Your task to perform on an android device: change keyboard looks Image 0: 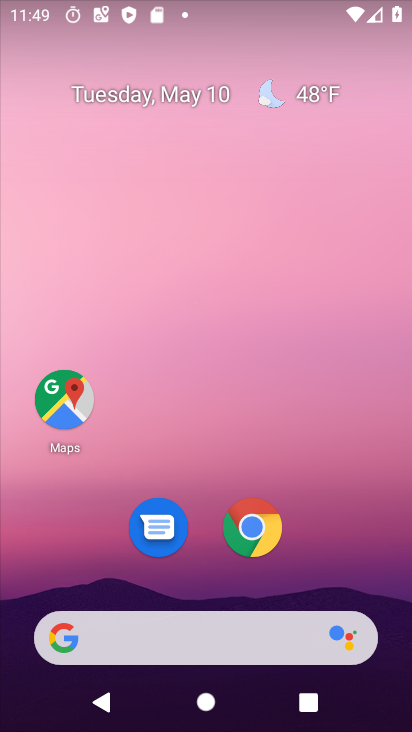
Step 0: drag from (227, 696) to (218, 126)
Your task to perform on an android device: change keyboard looks Image 1: 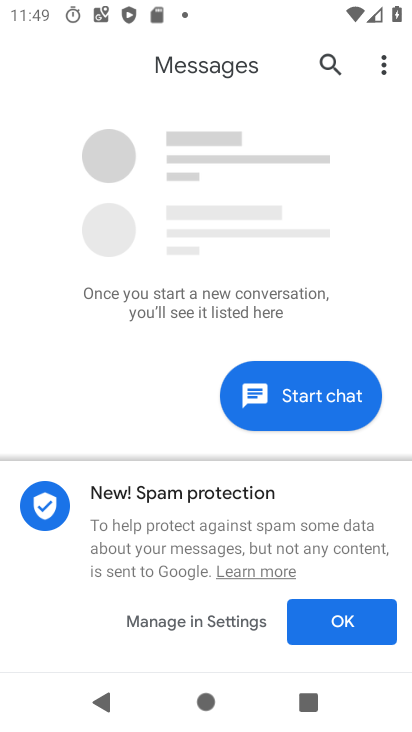
Step 1: press home button
Your task to perform on an android device: change keyboard looks Image 2: 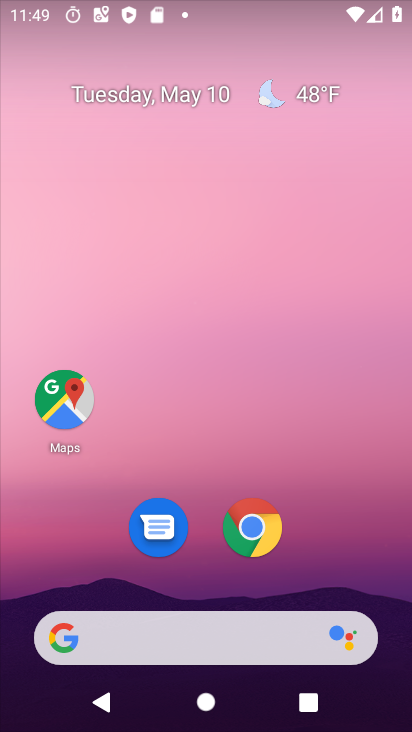
Step 2: drag from (226, 715) to (226, 88)
Your task to perform on an android device: change keyboard looks Image 3: 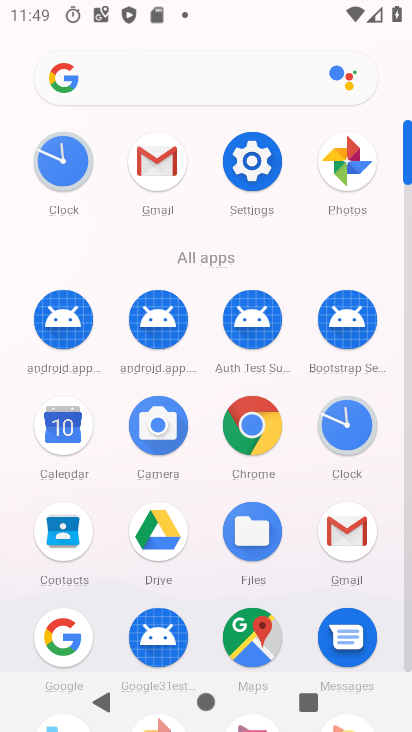
Step 3: click (254, 171)
Your task to perform on an android device: change keyboard looks Image 4: 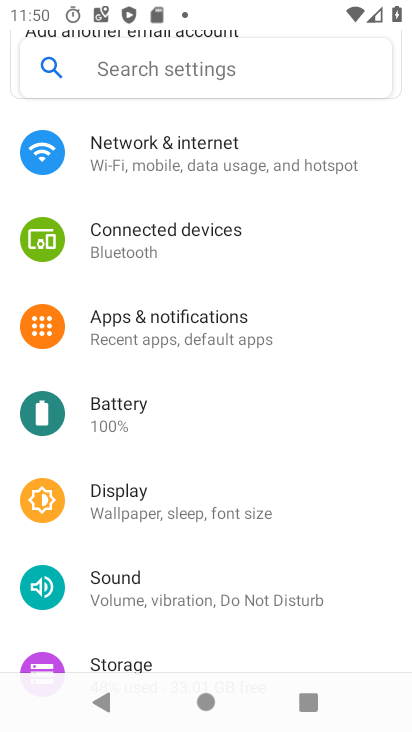
Step 4: drag from (210, 637) to (188, 279)
Your task to perform on an android device: change keyboard looks Image 5: 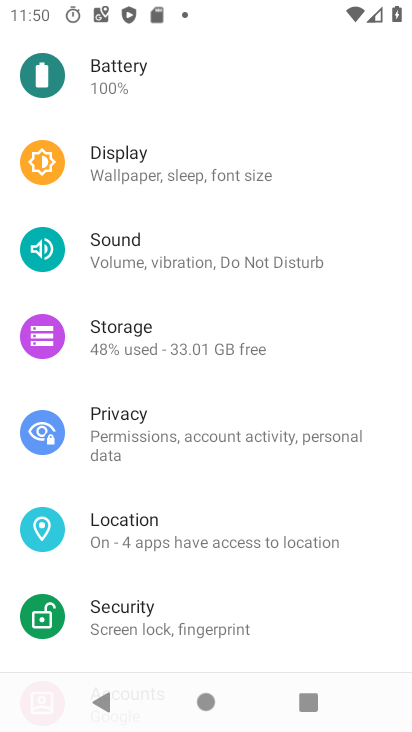
Step 5: drag from (203, 650) to (200, 290)
Your task to perform on an android device: change keyboard looks Image 6: 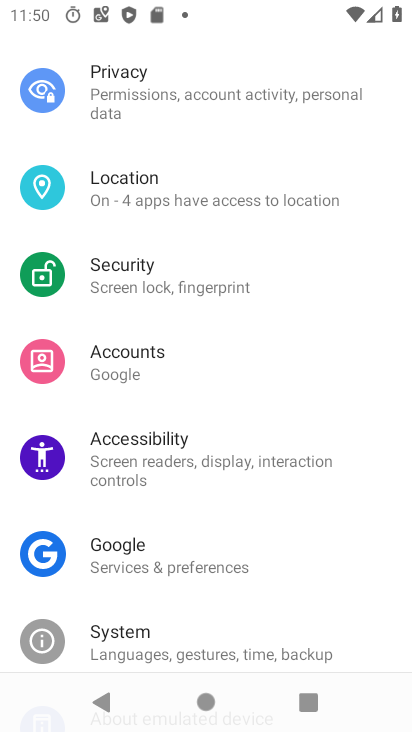
Step 6: click (131, 633)
Your task to perform on an android device: change keyboard looks Image 7: 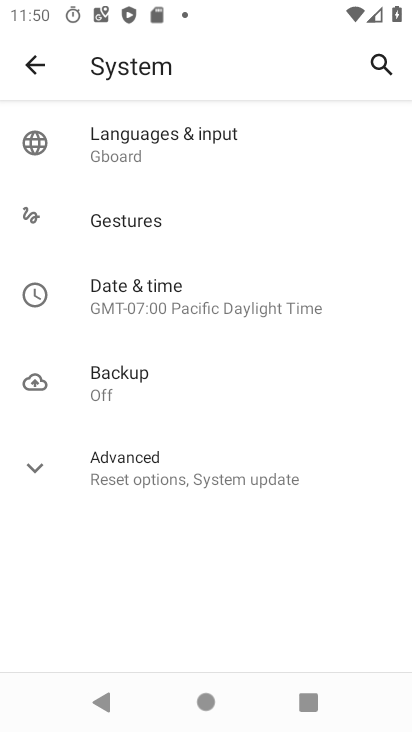
Step 7: click (136, 135)
Your task to perform on an android device: change keyboard looks Image 8: 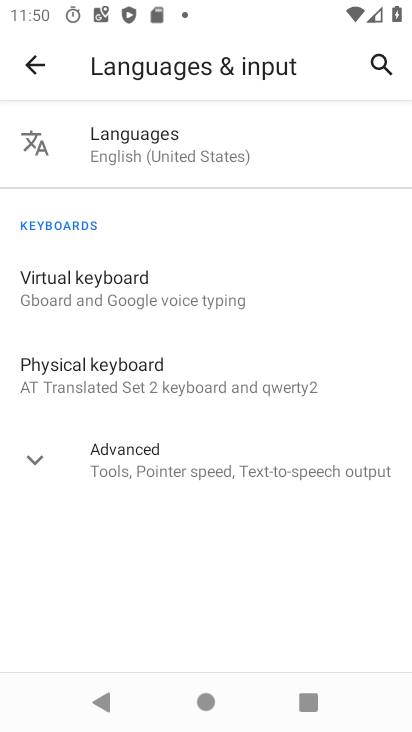
Step 8: click (133, 286)
Your task to perform on an android device: change keyboard looks Image 9: 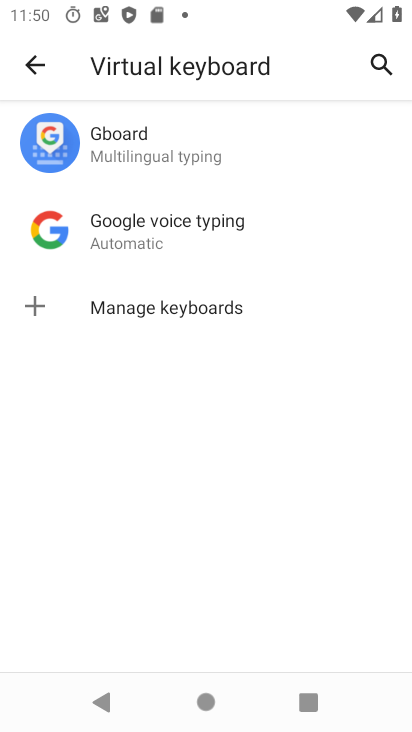
Step 9: click (138, 156)
Your task to perform on an android device: change keyboard looks Image 10: 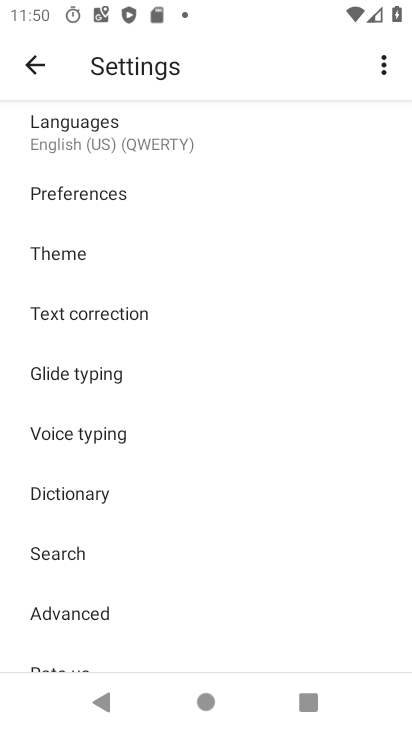
Step 10: click (62, 254)
Your task to perform on an android device: change keyboard looks Image 11: 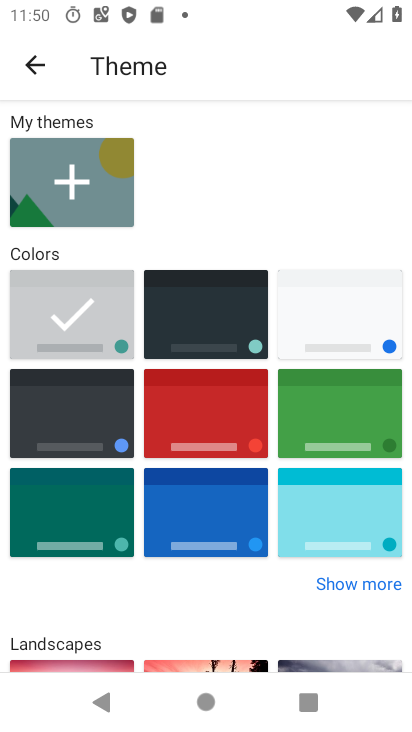
Step 11: click (162, 311)
Your task to perform on an android device: change keyboard looks Image 12: 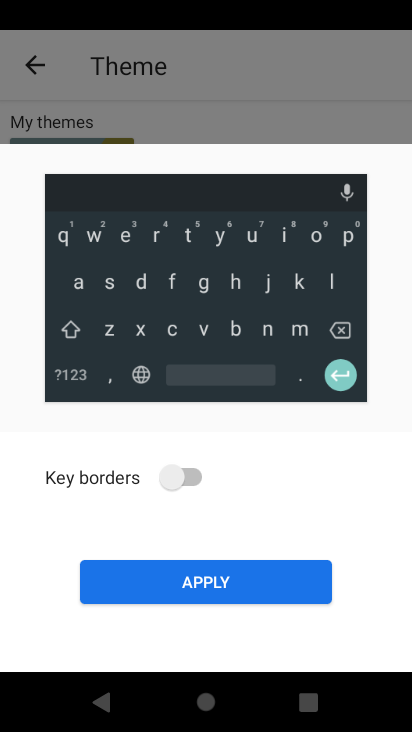
Step 12: click (193, 479)
Your task to perform on an android device: change keyboard looks Image 13: 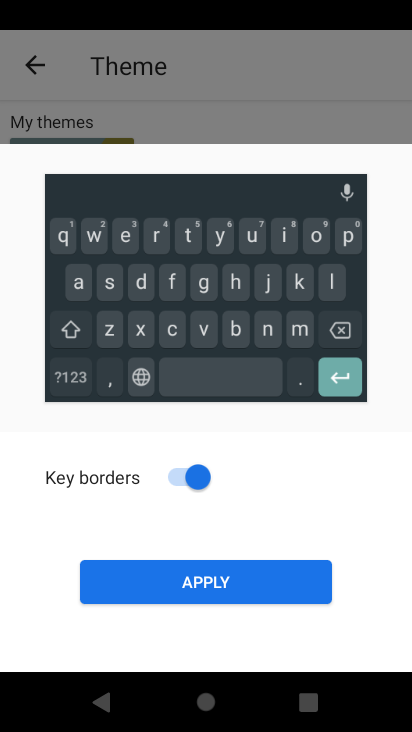
Step 13: click (212, 574)
Your task to perform on an android device: change keyboard looks Image 14: 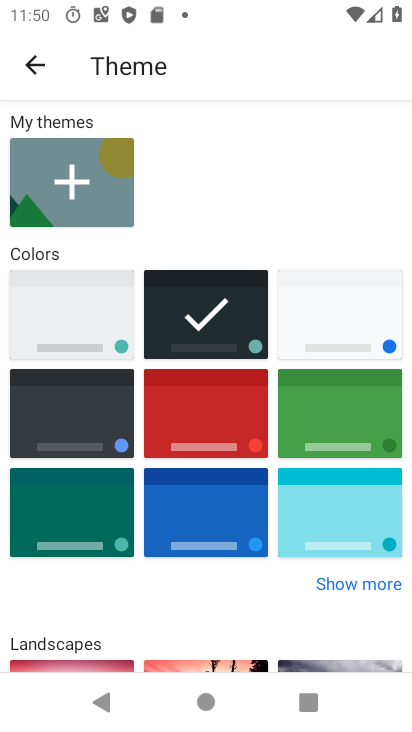
Step 14: task complete